Your task to perform on an android device: empty trash in google photos Image 0: 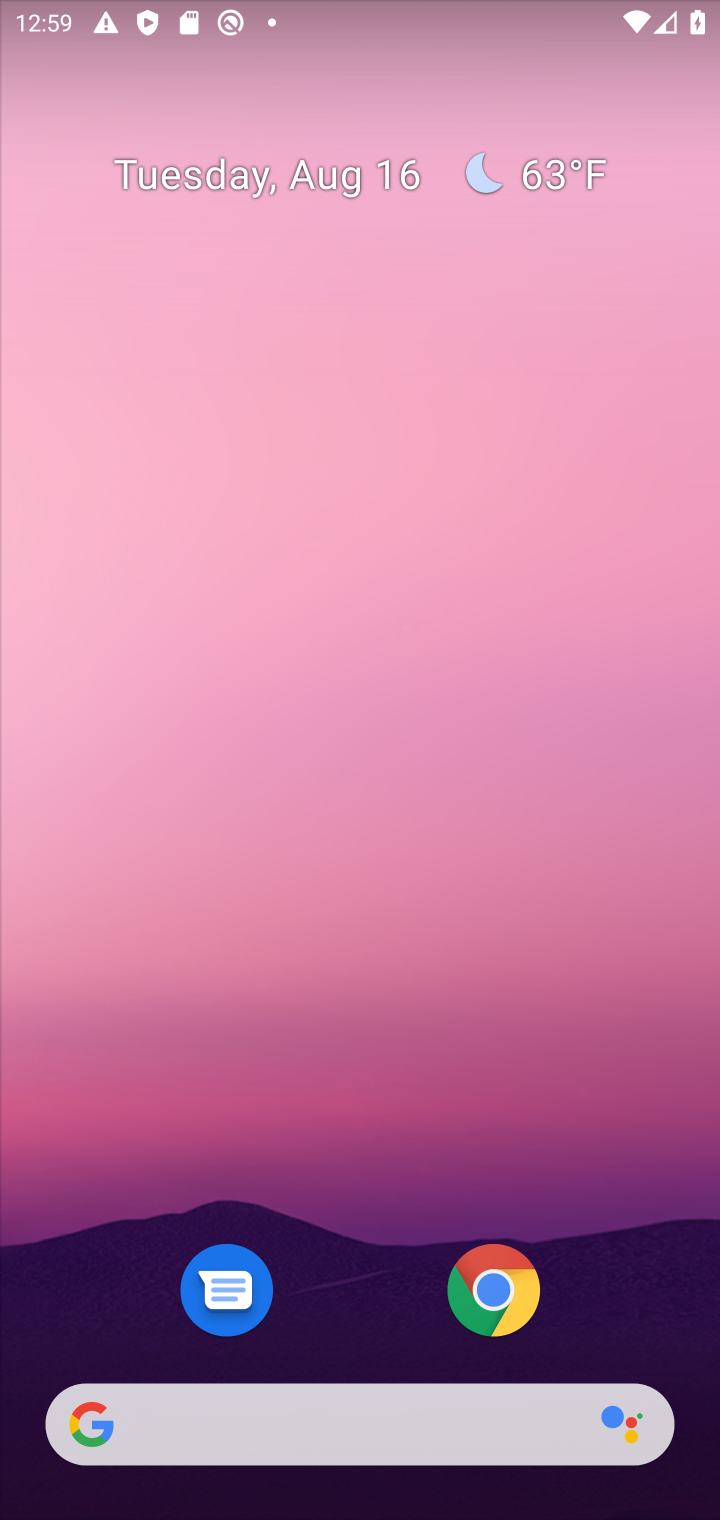
Step 0: drag from (28, 1407) to (613, 102)
Your task to perform on an android device: empty trash in google photos Image 1: 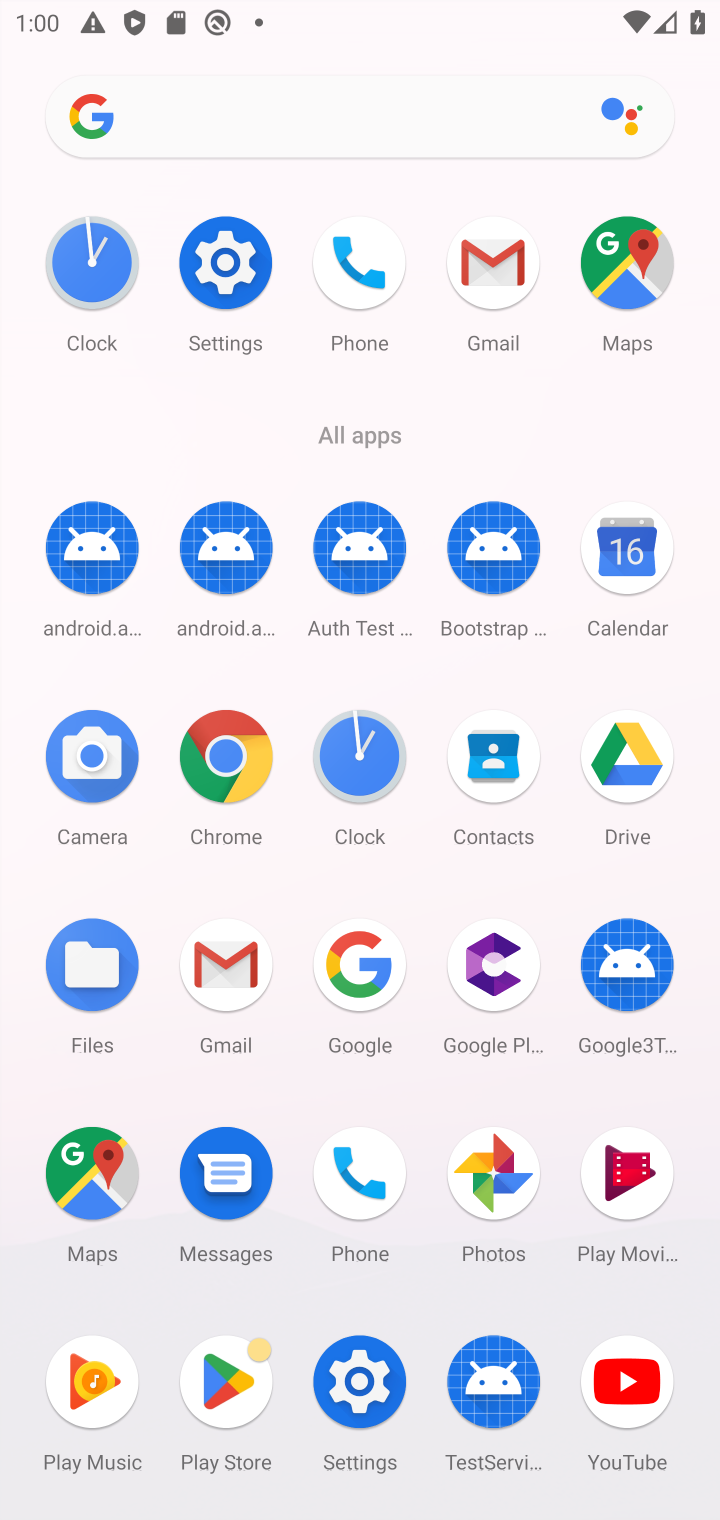
Step 1: click (498, 1156)
Your task to perform on an android device: empty trash in google photos Image 2: 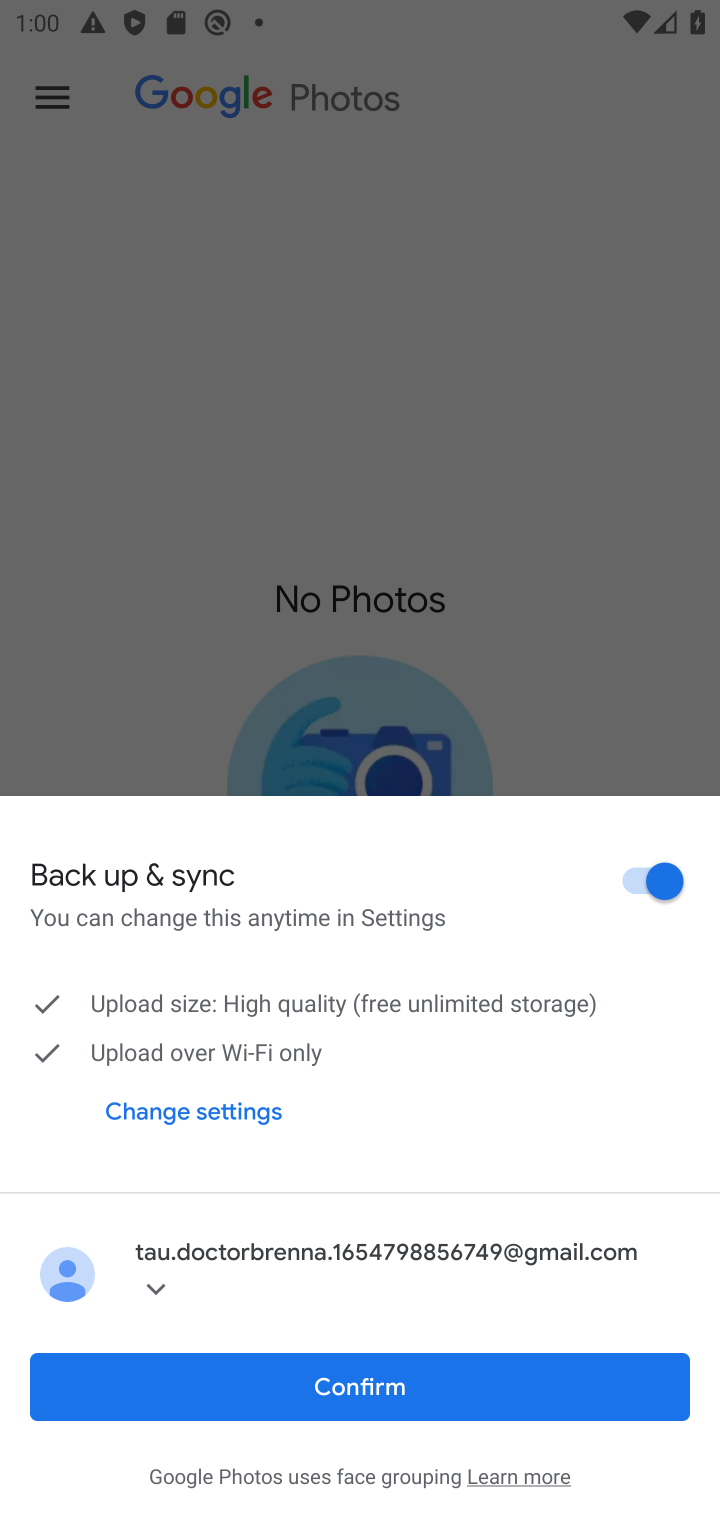
Step 2: click (425, 1412)
Your task to perform on an android device: empty trash in google photos Image 3: 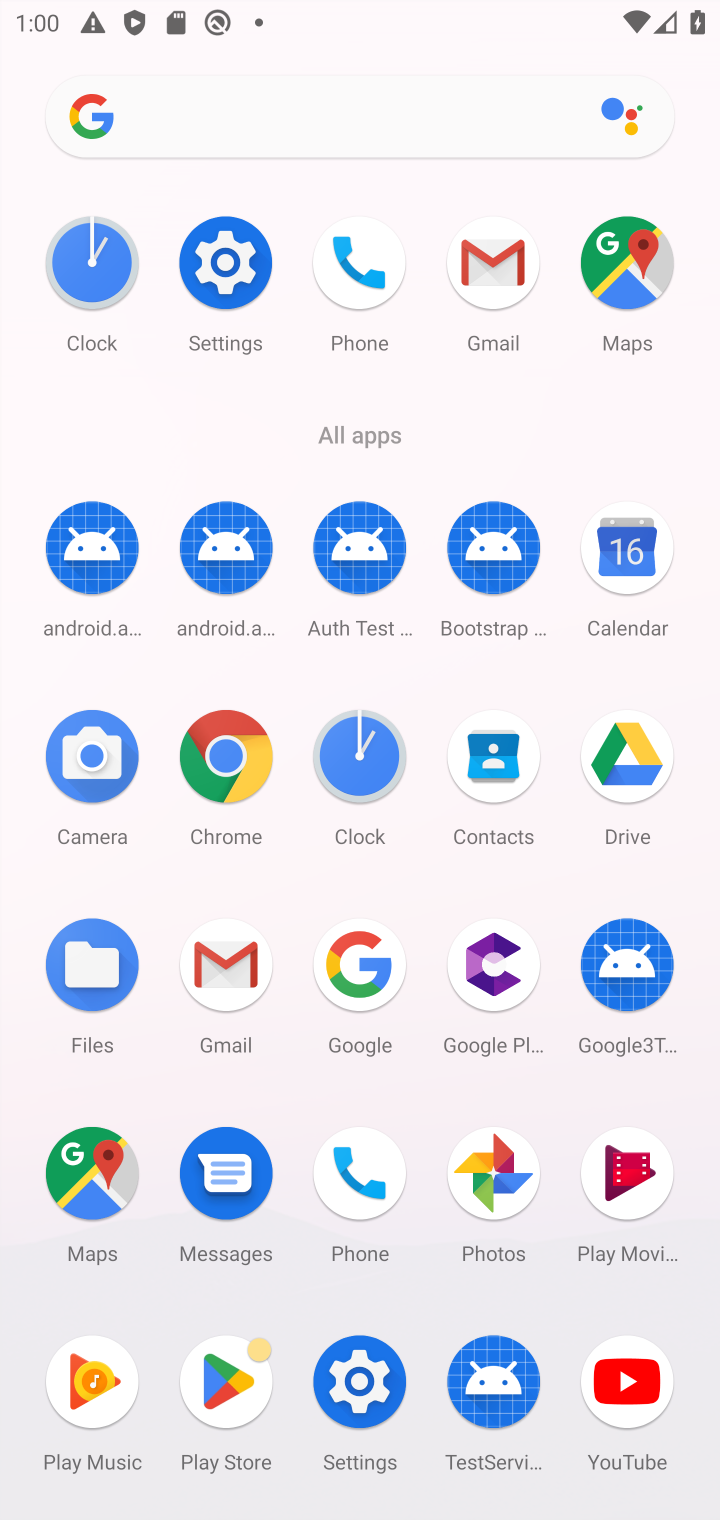
Step 3: click (527, 1174)
Your task to perform on an android device: empty trash in google photos Image 4: 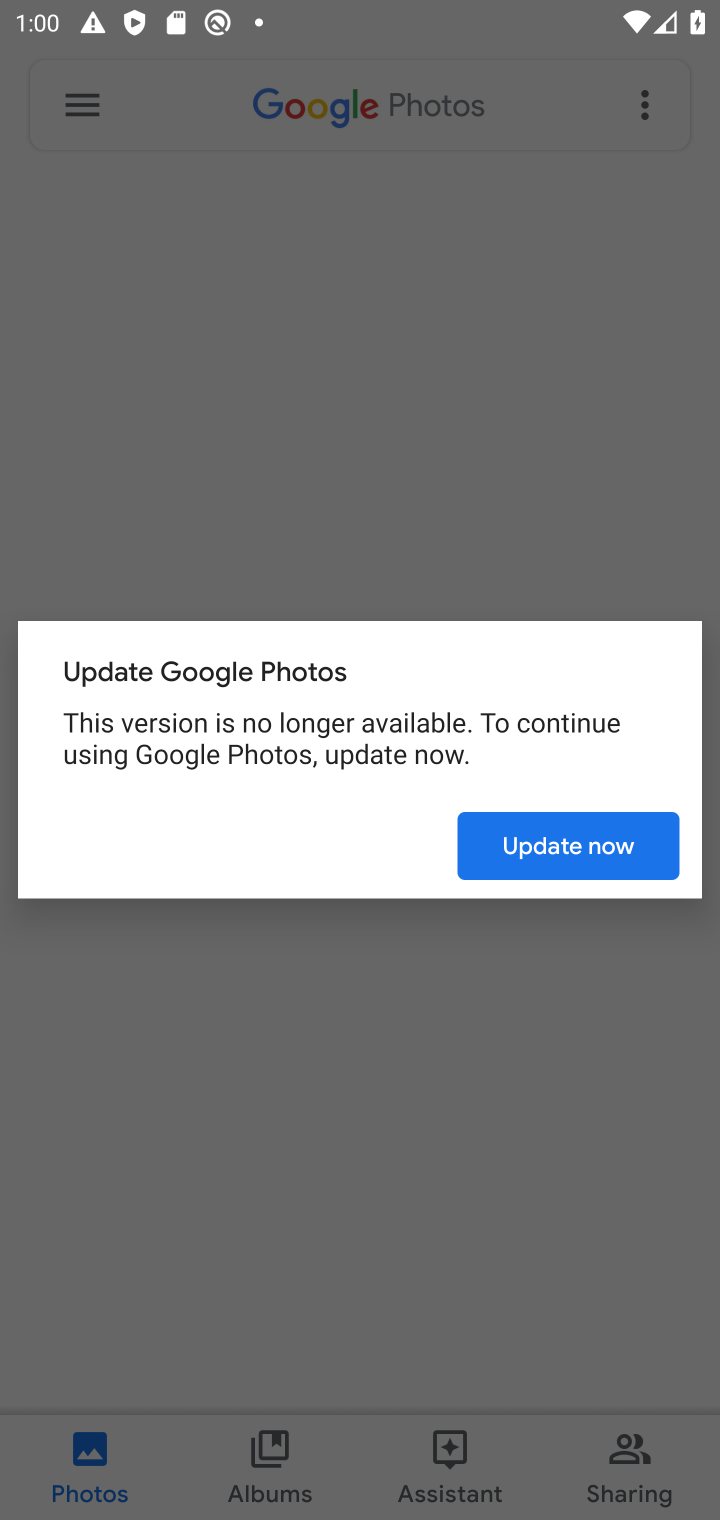
Step 4: click (642, 837)
Your task to perform on an android device: empty trash in google photos Image 5: 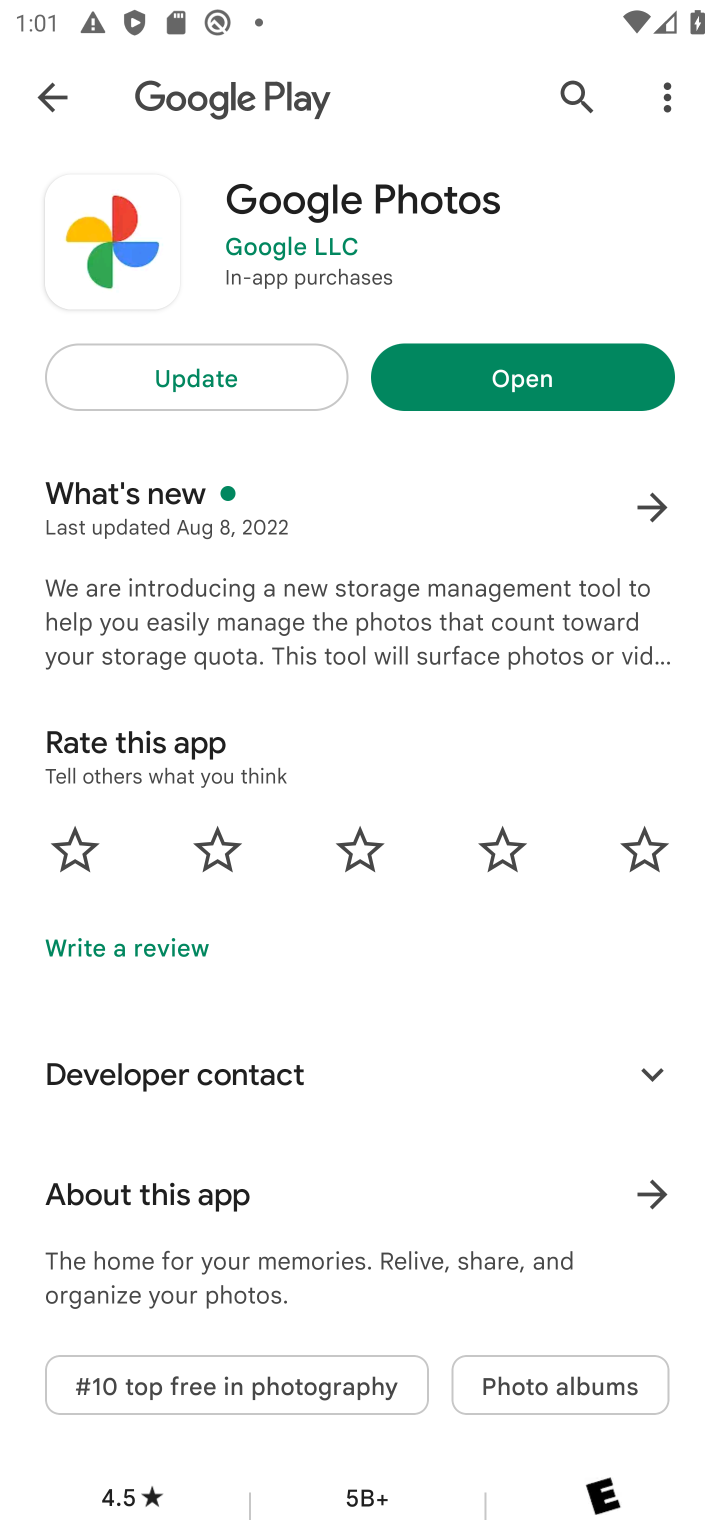
Step 5: click (472, 370)
Your task to perform on an android device: empty trash in google photos Image 6: 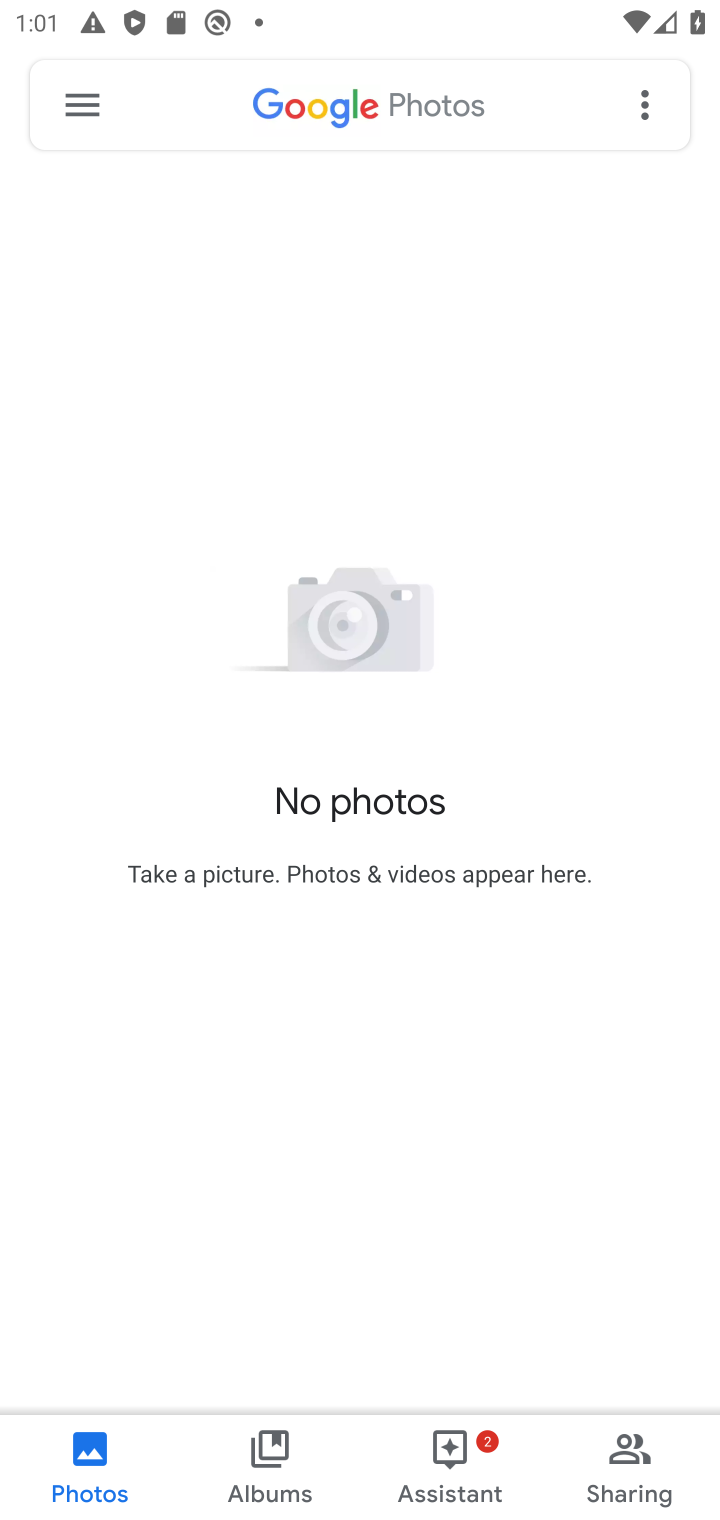
Step 6: click (65, 101)
Your task to perform on an android device: empty trash in google photos Image 7: 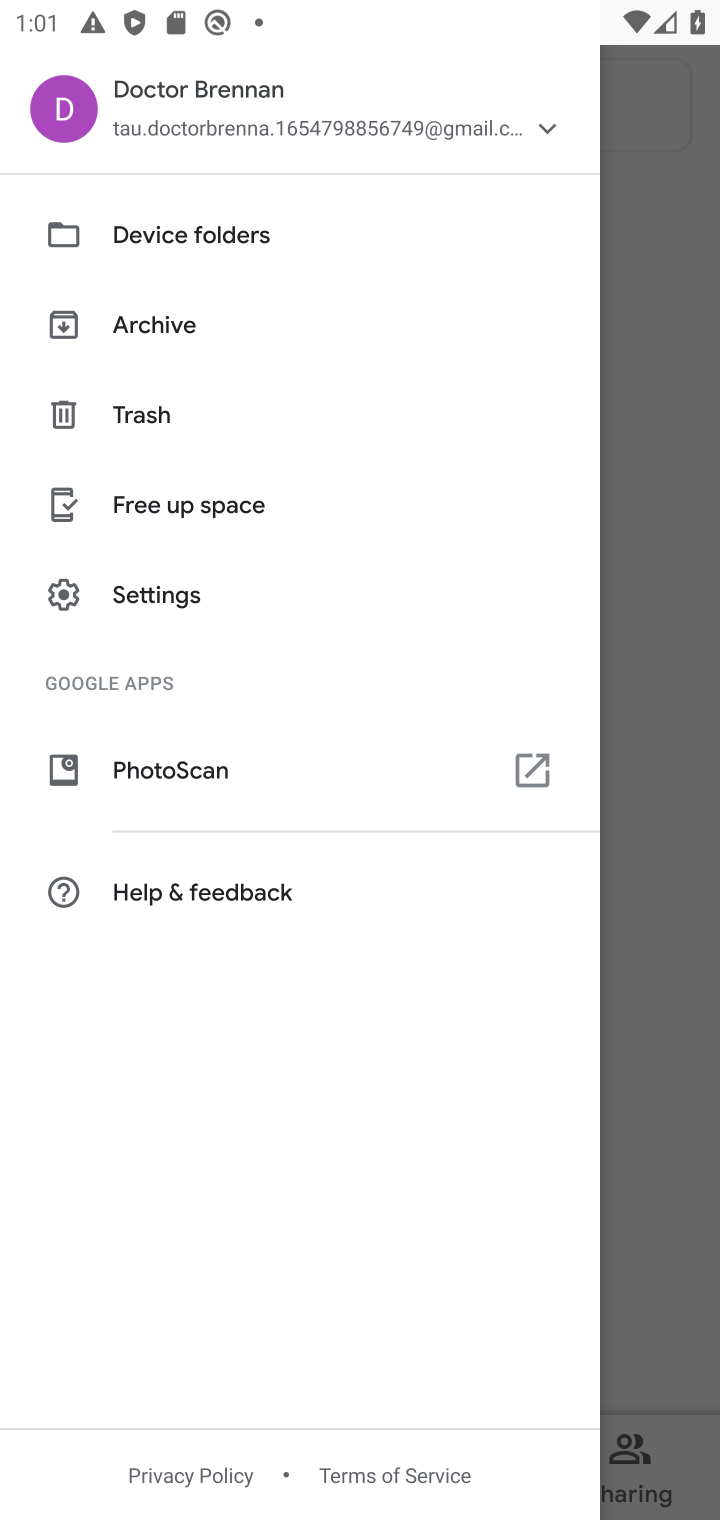
Step 7: click (169, 403)
Your task to perform on an android device: empty trash in google photos Image 8: 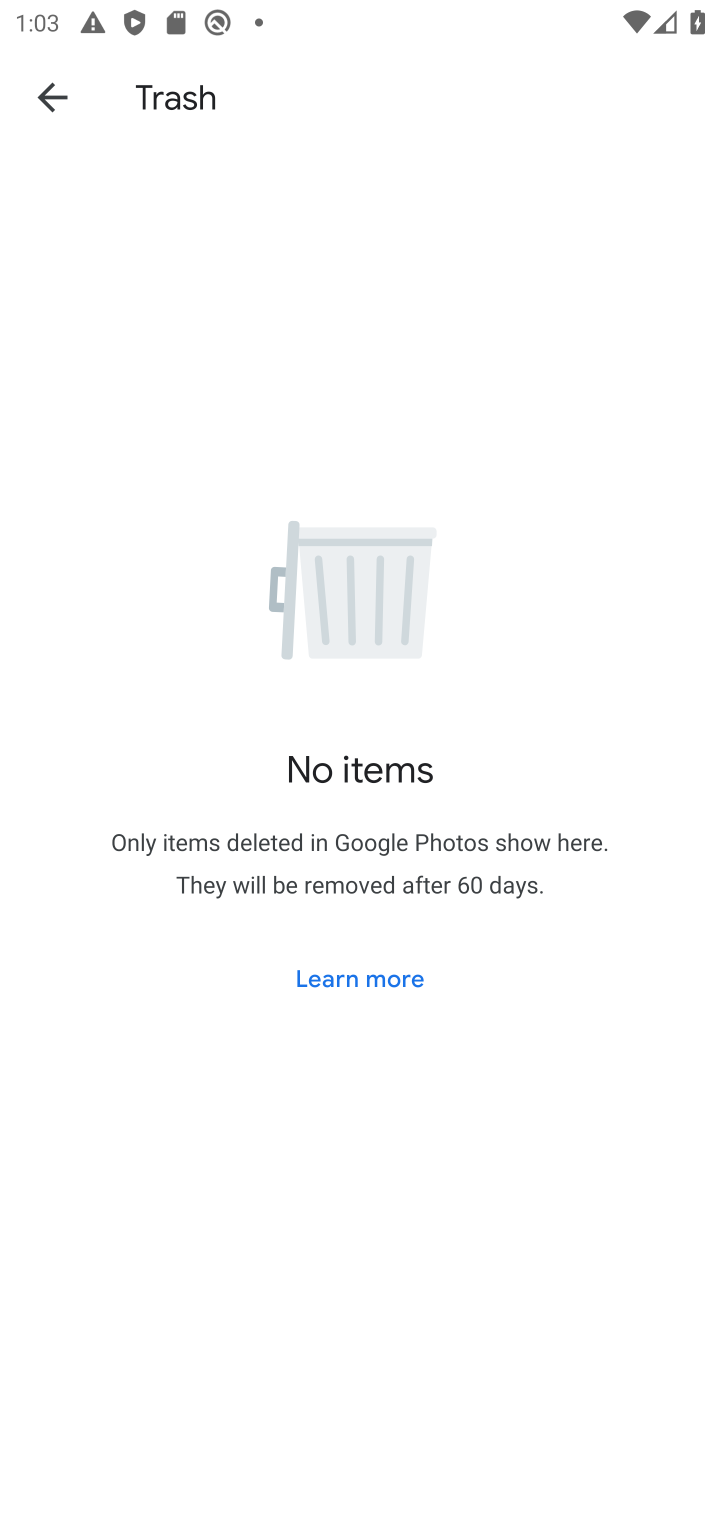
Step 8: task complete